Your task to perform on an android device: check battery use Image 0: 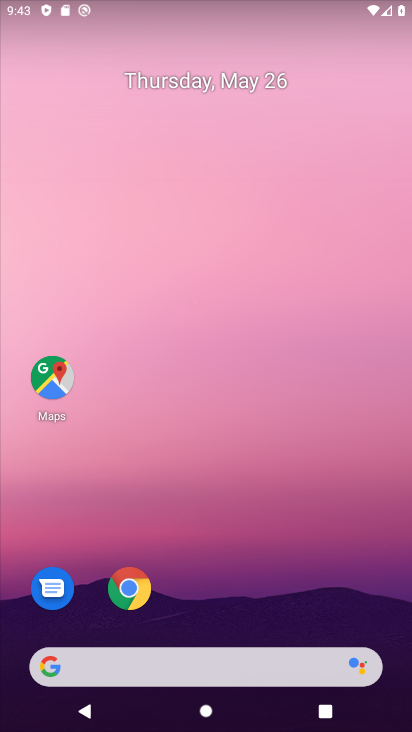
Step 0: drag from (231, 713) to (270, 16)
Your task to perform on an android device: check battery use Image 1: 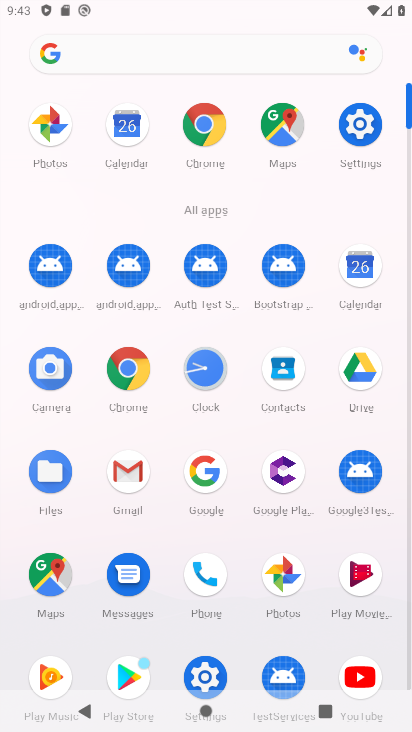
Step 1: click (364, 125)
Your task to perform on an android device: check battery use Image 2: 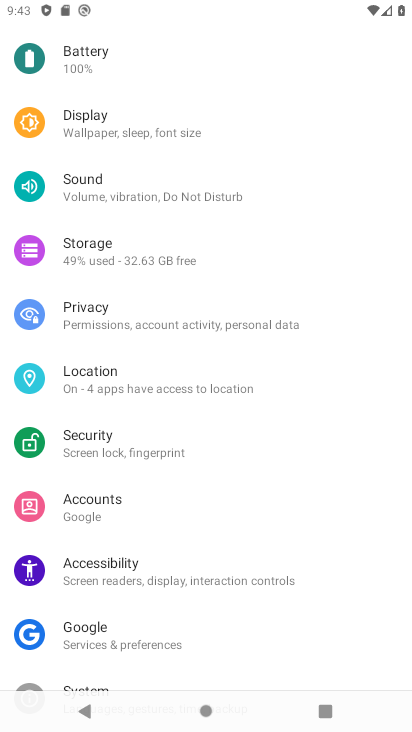
Step 2: click (82, 70)
Your task to perform on an android device: check battery use Image 3: 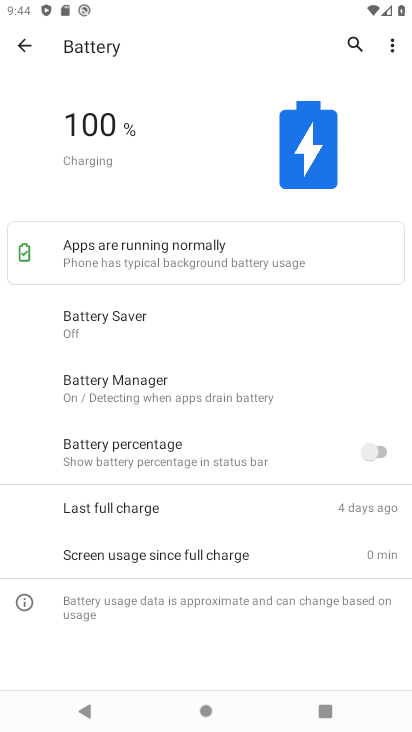
Step 3: click (393, 49)
Your task to perform on an android device: check battery use Image 4: 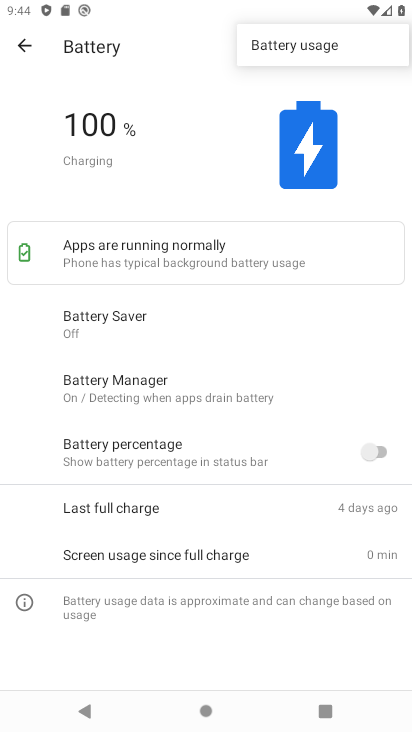
Step 4: click (282, 47)
Your task to perform on an android device: check battery use Image 5: 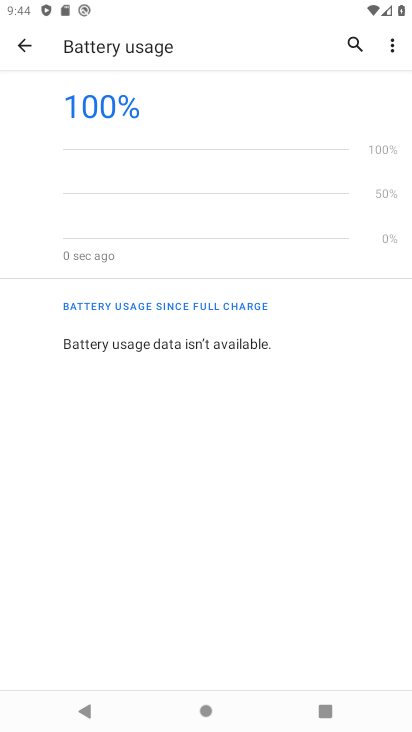
Step 5: task complete